Your task to perform on an android device: Add "macbook pro 15 inch" to the cart on newegg.com, then select checkout. Image 0: 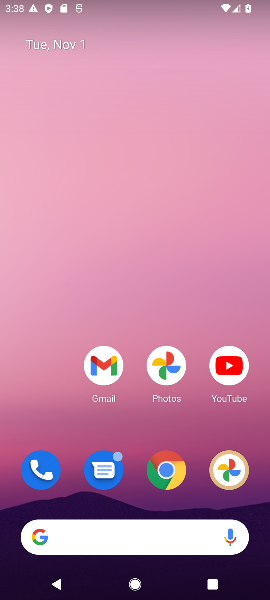
Step 0: click (167, 469)
Your task to perform on an android device: Add "macbook pro 15 inch" to the cart on newegg.com, then select checkout. Image 1: 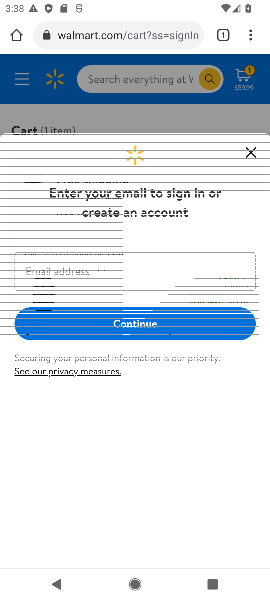
Step 1: click (121, 35)
Your task to perform on an android device: Add "macbook pro 15 inch" to the cart on newegg.com, then select checkout. Image 2: 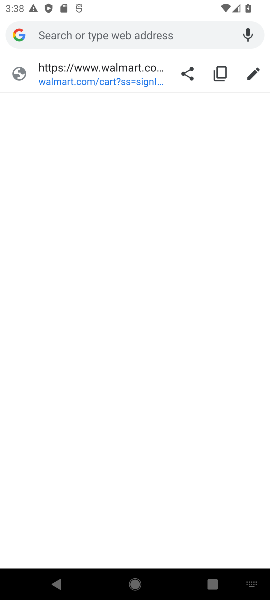
Step 2: type "newegg"
Your task to perform on an android device: Add "macbook pro 15 inch" to the cart on newegg.com, then select checkout. Image 3: 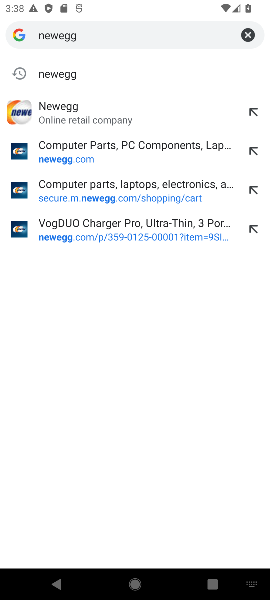
Step 3: press enter
Your task to perform on an android device: Add "macbook pro 15 inch" to the cart on newegg.com, then select checkout. Image 4: 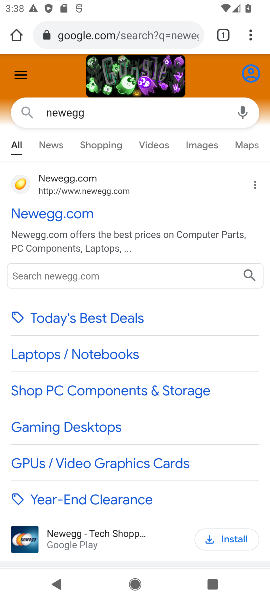
Step 4: click (57, 211)
Your task to perform on an android device: Add "macbook pro 15 inch" to the cart on newegg.com, then select checkout. Image 5: 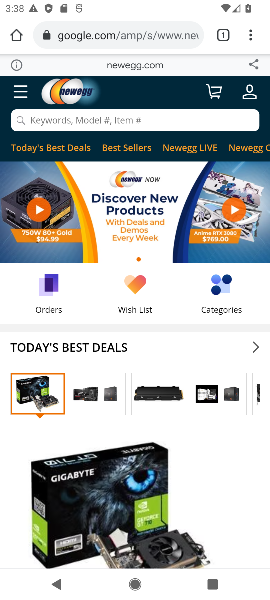
Step 5: click (113, 120)
Your task to perform on an android device: Add "macbook pro 15 inch" to the cart on newegg.com, then select checkout. Image 6: 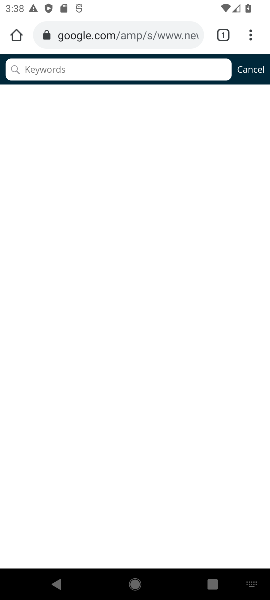
Step 6: type "macbook pro 15 inch"
Your task to perform on an android device: Add "macbook pro 15 inch" to the cart on newegg.com, then select checkout. Image 7: 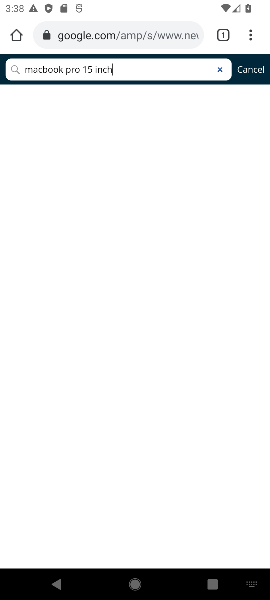
Step 7: press enter
Your task to perform on an android device: Add "macbook pro 15 inch" to the cart on newegg.com, then select checkout. Image 8: 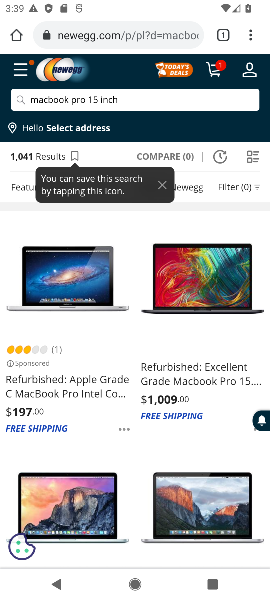
Step 8: drag from (117, 344) to (110, 311)
Your task to perform on an android device: Add "macbook pro 15 inch" to the cart on newegg.com, then select checkout. Image 9: 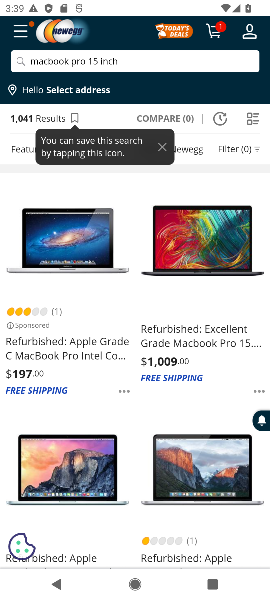
Step 9: drag from (121, 427) to (119, 558)
Your task to perform on an android device: Add "macbook pro 15 inch" to the cart on newegg.com, then select checkout. Image 10: 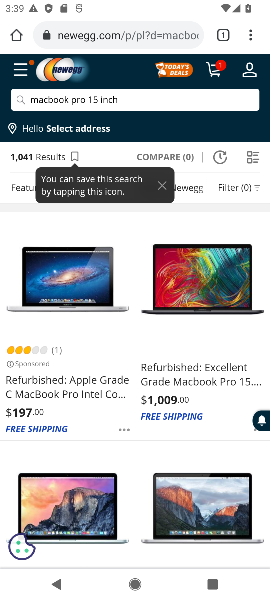
Step 10: click (80, 379)
Your task to perform on an android device: Add "macbook pro 15 inch" to the cart on newegg.com, then select checkout. Image 11: 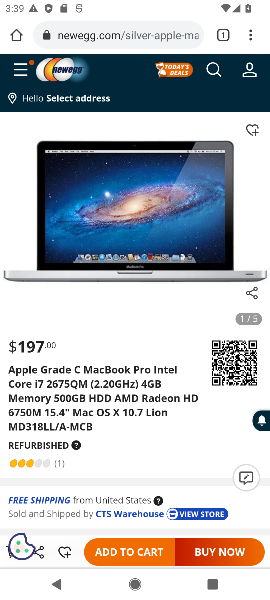
Step 11: click (181, 367)
Your task to perform on an android device: Add "macbook pro 15 inch" to the cart on newegg.com, then select checkout. Image 12: 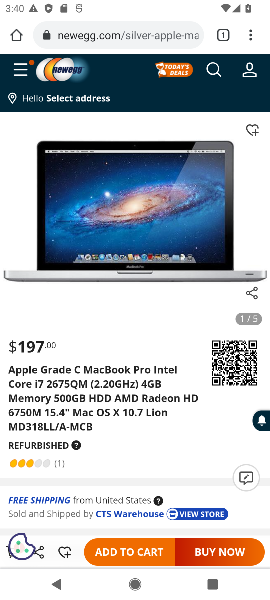
Step 12: click (124, 551)
Your task to perform on an android device: Add "macbook pro 15 inch" to the cart on newegg.com, then select checkout. Image 13: 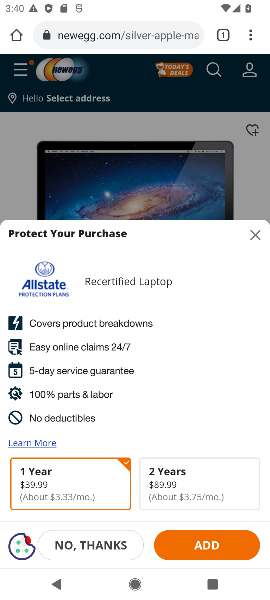
Step 13: click (104, 544)
Your task to perform on an android device: Add "macbook pro 15 inch" to the cart on newegg.com, then select checkout. Image 14: 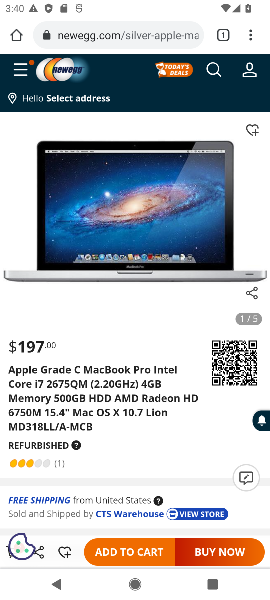
Step 14: click (251, 74)
Your task to perform on an android device: Add "macbook pro 15 inch" to the cart on newegg.com, then select checkout. Image 15: 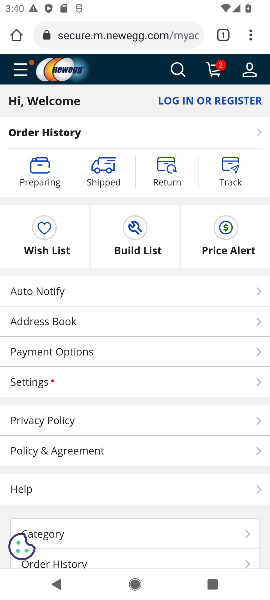
Step 15: click (215, 67)
Your task to perform on an android device: Add "macbook pro 15 inch" to the cart on newegg.com, then select checkout. Image 16: 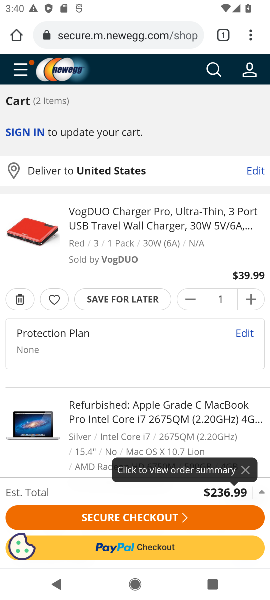
Step 16: click (118, 520)
Your task to perform on an android device: Add "macbook pro 15 inch" to the cart on newegg.com, then select checkout. Image 17: 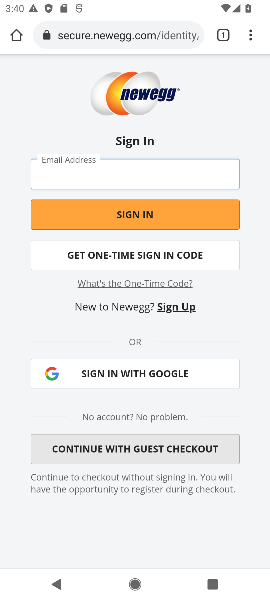
Step 17: task complete